Your task to perform on an android device: empty trash in google photos Image 0: 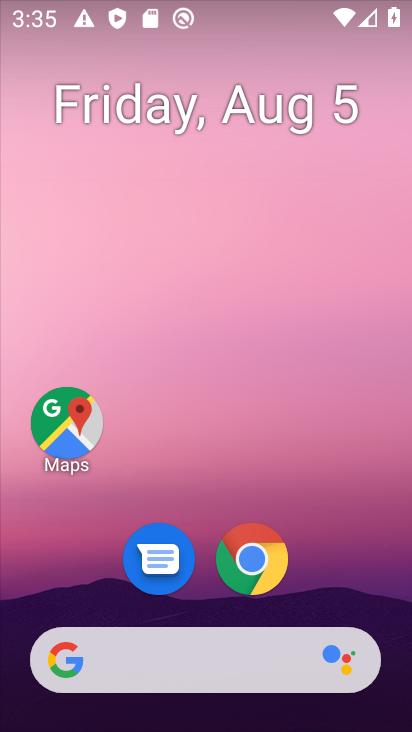
Step 0: drag from (179, 173) to (246, 41)
Your task to perform on an android device: empty trash in google photos Image 1: 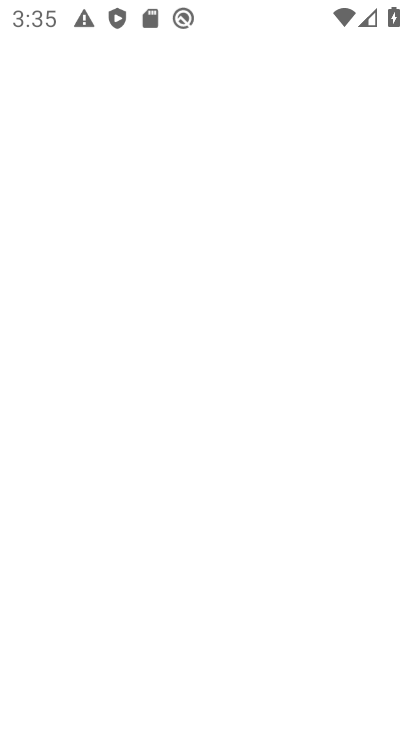
Step 1: task complete